Your task to perform on an android device: When is my next meeting? Image 0: 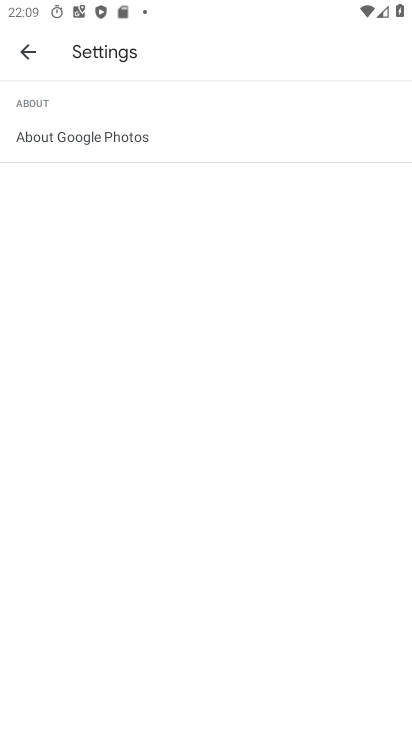
Step 0: press home button
Your task to perform on an android device: When is my next meeting? Image 1: 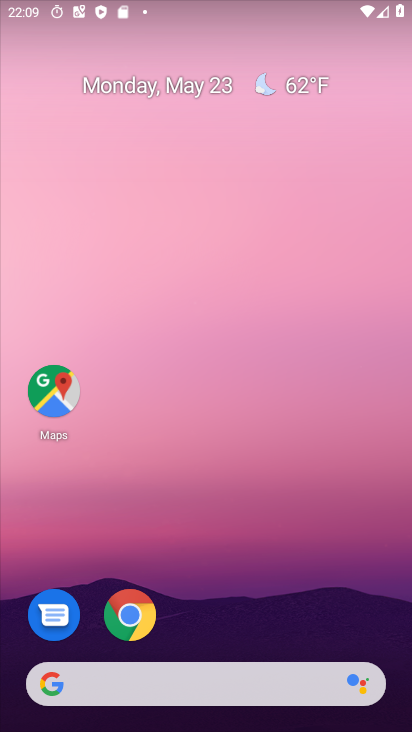
Step 1: drag from (245, 621) to (272, 178)
Your task to perform on an android device: When is my next meeting? Image 2: 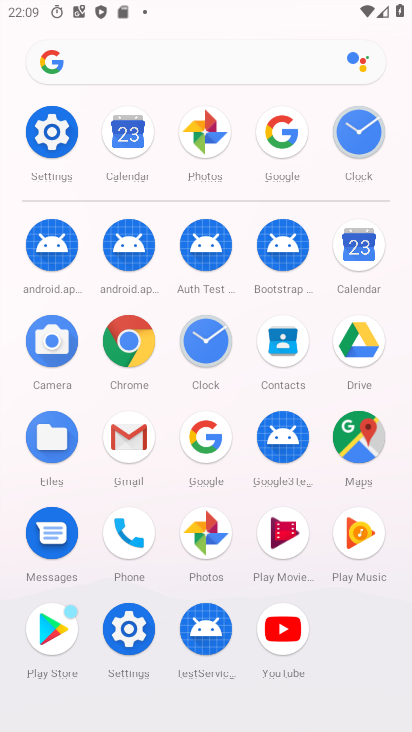
Step 2: click (352, 242)
Your task to perform on an android device: When is my next meeting? Image 3: 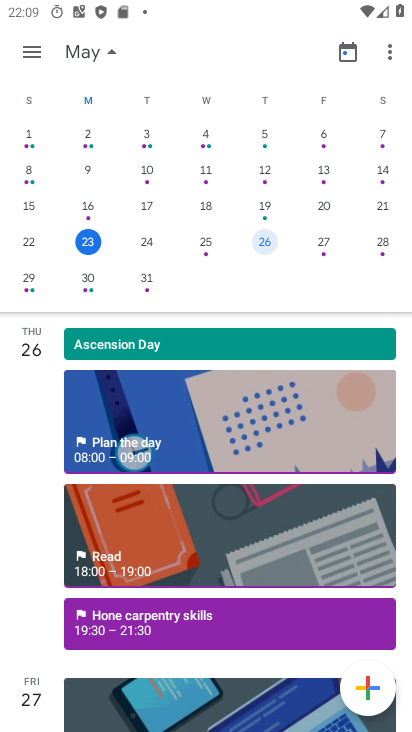
Step 3: click (204, 247)
Your task to perform on an android device: When is my next meeting? Image 4: 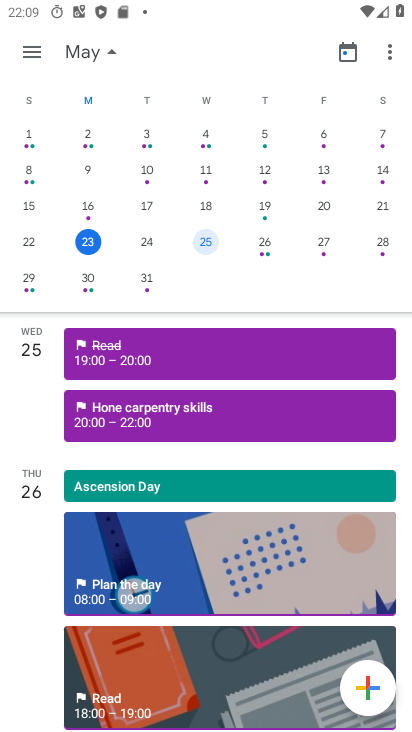
Step 4: task complete